Your task to perform on an android device: open the mobile data screen to see how much data has been used Image 0: 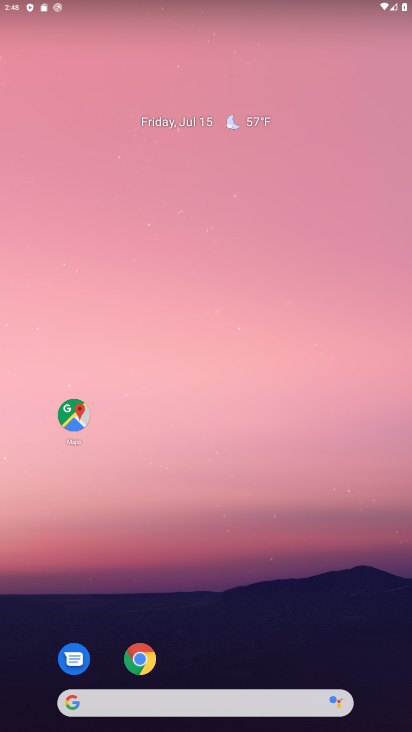
Step 0: drag from (181, 288) to (215, 1)
Your task to perform on an android device: open the mobile data screen to see how much data has been used Image 1: 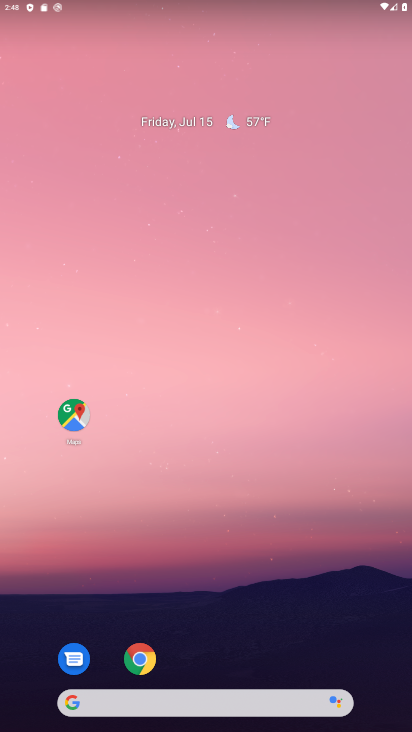
Step 1: drag from (277, 631) to (297, 30)
Your task to perform on an android device: open the mobile data screen to see how much data has been used Image 2: 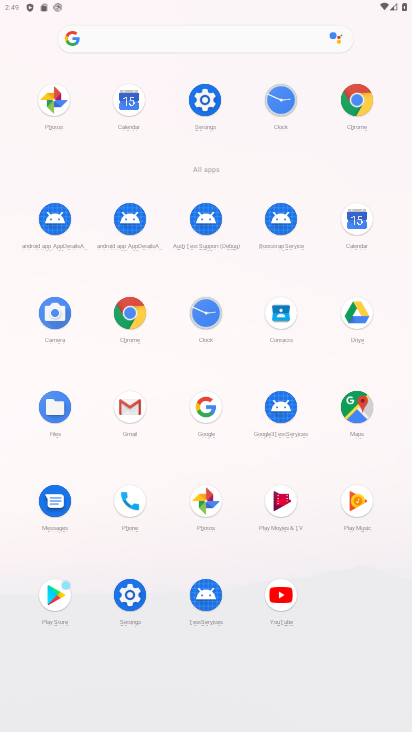
Step 2: click (132, 596)
Your task to perform on an android device: open the mobile data screen to see how much data has been used Image 3: 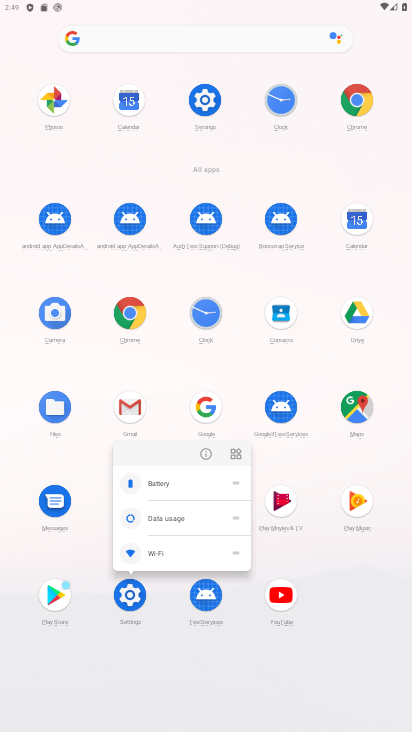
Step 3: click (139, 603)
Your task to perform on an android device: open the mobile data screen to see how much data has been used Image 4: 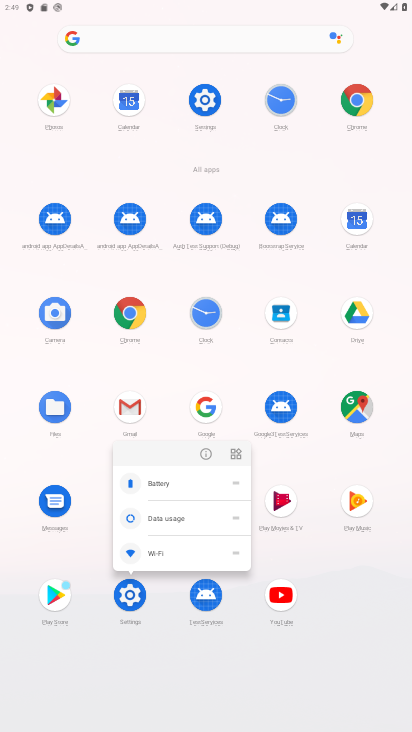
Step 4: click (139, 603)
Your task to perform on an android device: open the mobile data screen to see how much data has been used Image 5: 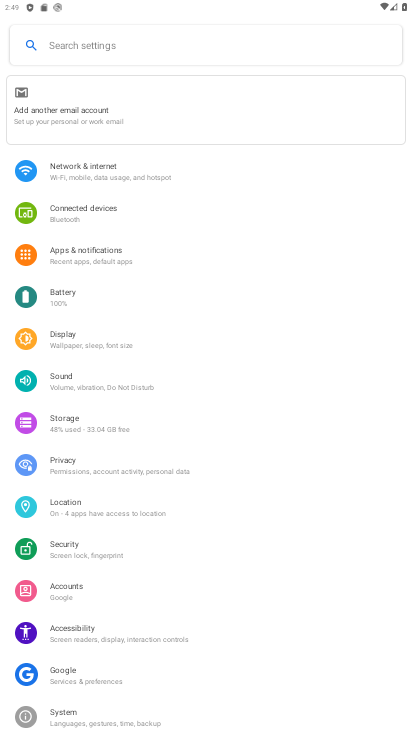
Step 5: click (130, 171)
Your task to perform on an android device: open the mobile data screen to see how much data has been used Image 6: 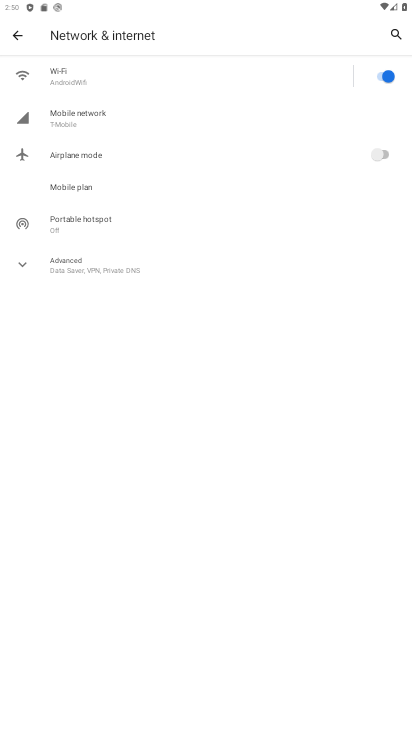
Step 6: click (85, 123)
Your task to perform on an android device: open the mobile data screen to see how much data has been used Image 7: 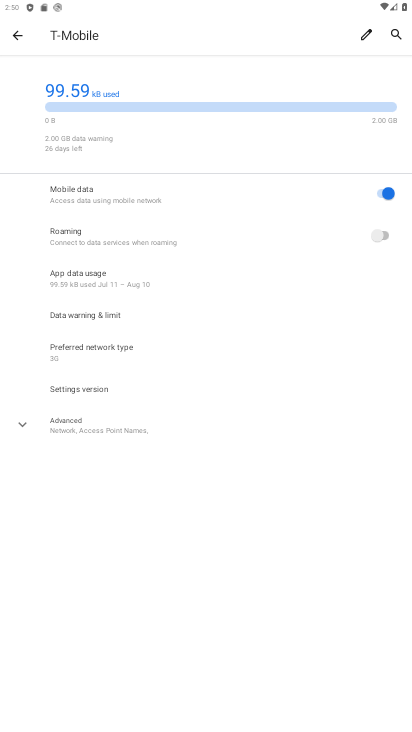
Step 7: click (101, 275)
Your task to perform on an android device: open the mobile data screen to see how much data has been used Image 8: 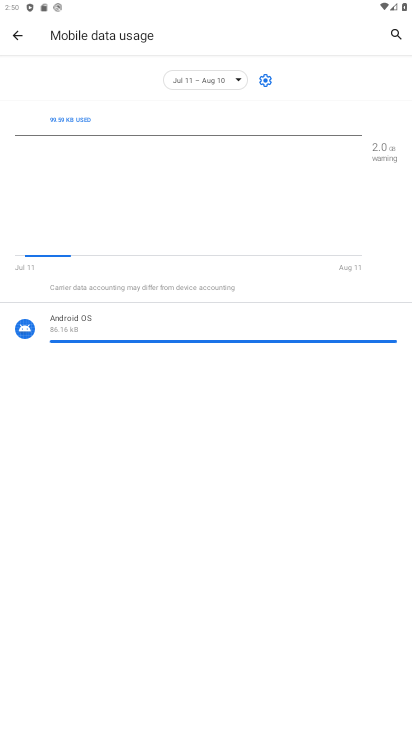
Step 8: task complete